Your task to perform on an android device: turn off notifications settings in the gmail app Image 0: 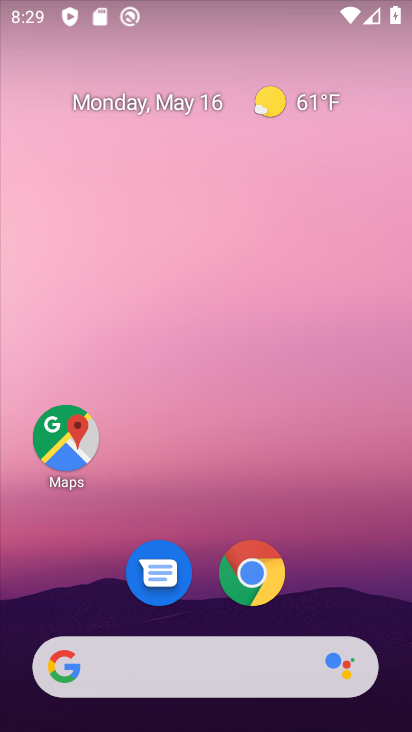
Step 0: drag from (225, 723) to (233, 260)
Your task to perform on an android device: turn off notifications settings in the gmail app Image 1: 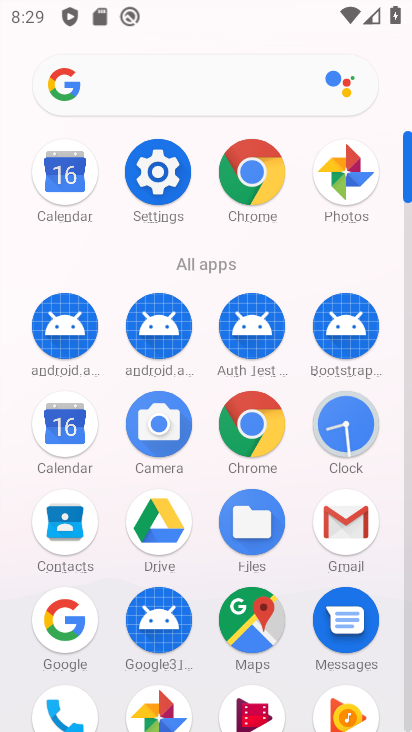
Step 1: click (352, 523)
Your task to perform on an android device: turn off notifications settings in the gmail app Image 2: 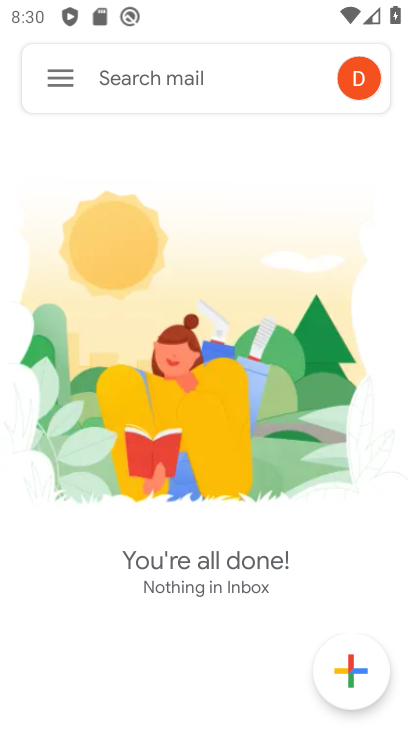
Step 2: click (71, 80)
Your task to perform on an android device: turn off notifications settings in the gmail app Image 3: 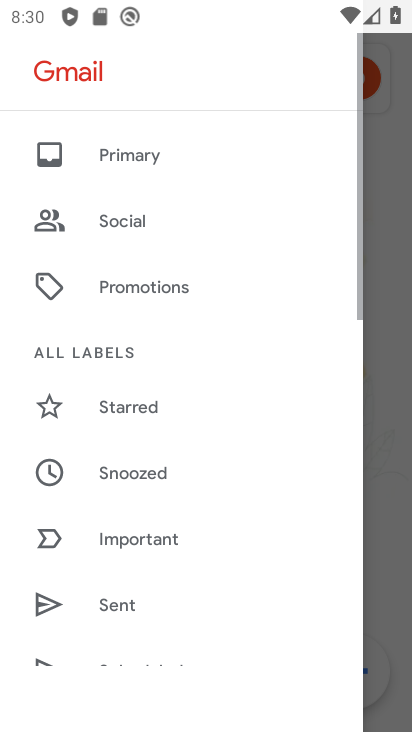
Step 3: drag from (124, 604) to (130, 322)
Your task to perform on an android device: turn off notifications settings in the gmail app Image 4: 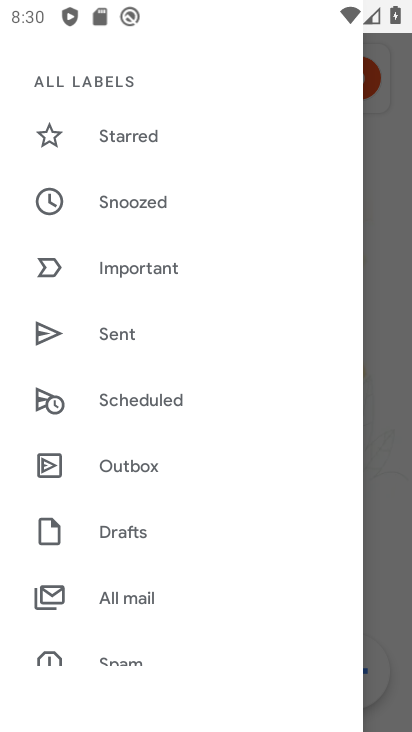
Step 4: drag from (143, 663) to (136, 347)
Your task to perform on an android device: turn off notifications settings in the gmail app Image 5: 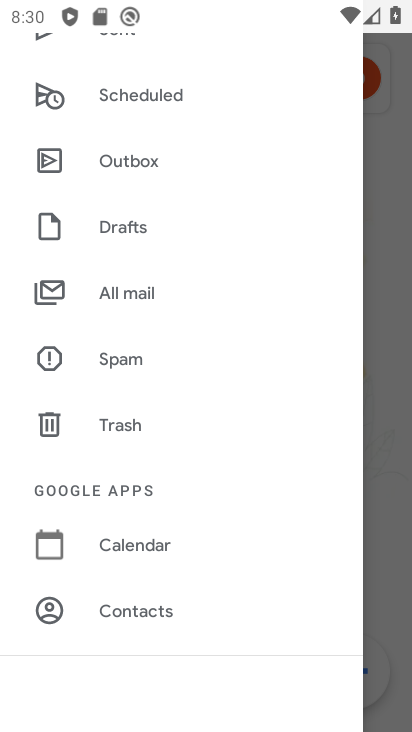
Step 5: drag from (122, 624) to (135, 337)
Your task to perform on an android device: turn off notifications settings in the gmail app Image 6: 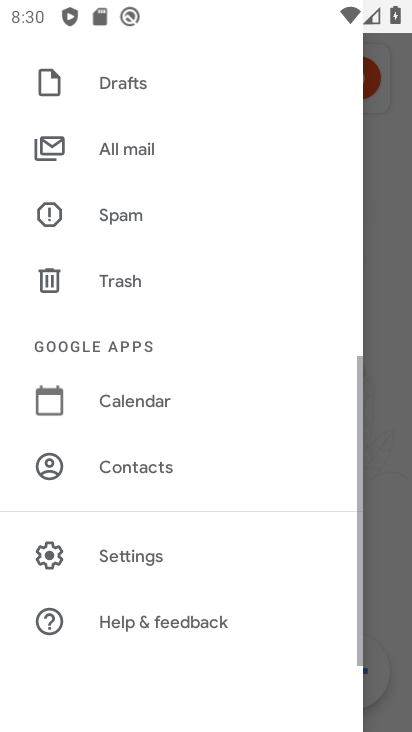
Step 6: click (135, 551)
Your task to perform on an android device: turn off notifications settings in the gmail app Image 7: 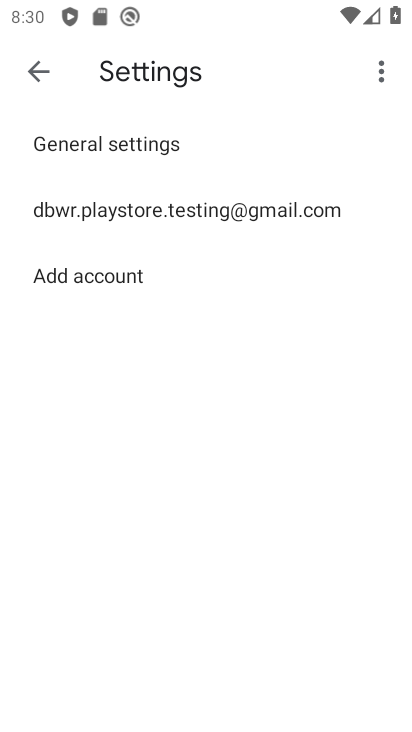
Step 7: click (176, 203)
Your task to perform on an android device: turn off notifications settings in the gmail app Image 8: 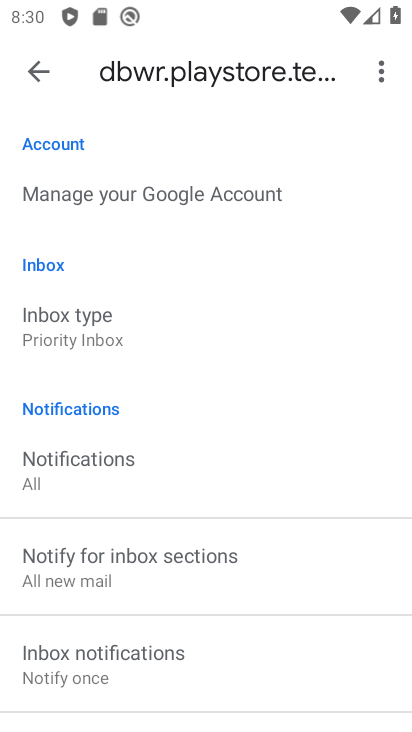
Step 8: click (101, 458)
Your task to perform on an android device: turn off notifications settings in the gmail app Image 9: 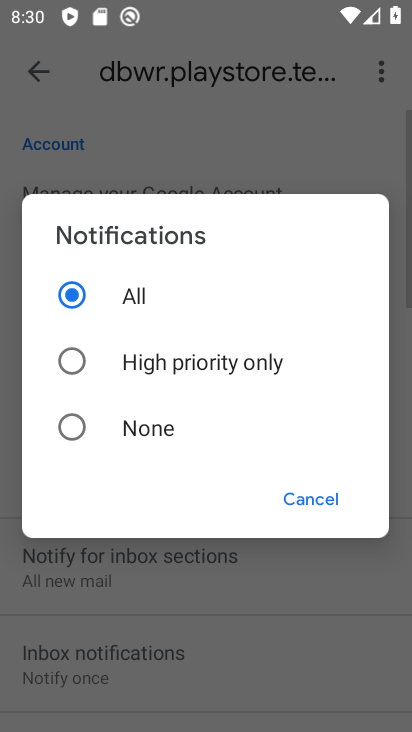
Step 9: click (69, 424)
Your task to perform on an android device: turn off notifications settings in the gmail app Image 10: 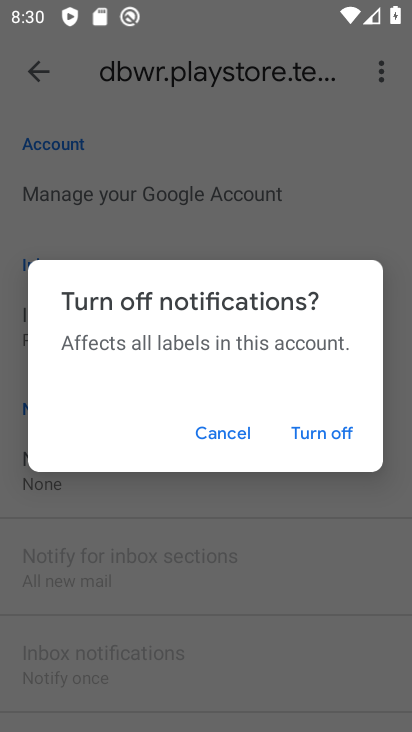
Step 10: click (312, 431)
Your task to perform on an android device: turn off notifications settings in the gmail app Image 11: 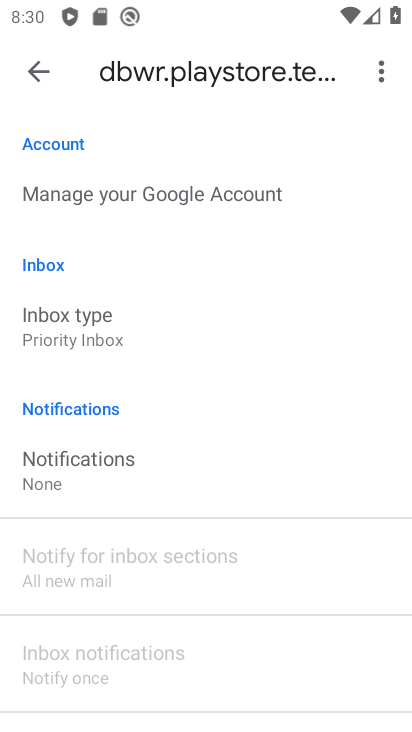
Step 11: task complete